Your task to perform on an android device: Open eBay Image 0: 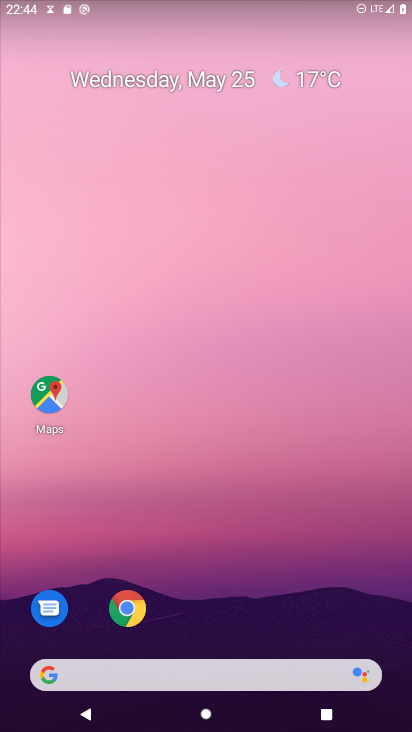
Step 0: click (128, 607)
Your task to perform on an android device: Open eBay Image 1: 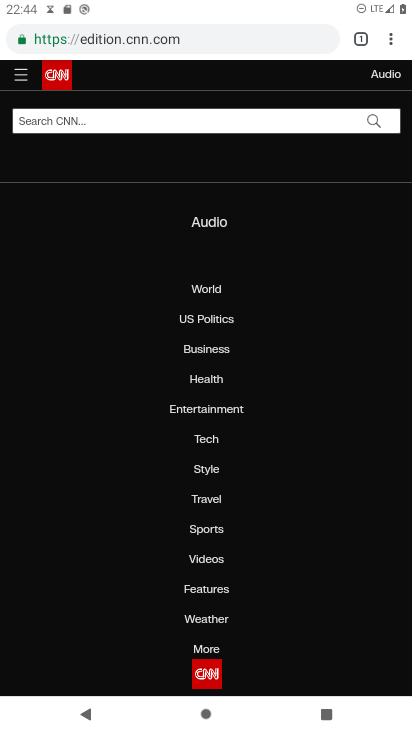
Step 1: click (390, 40)
Your task to perform on an android device: Open eBay Image 2: 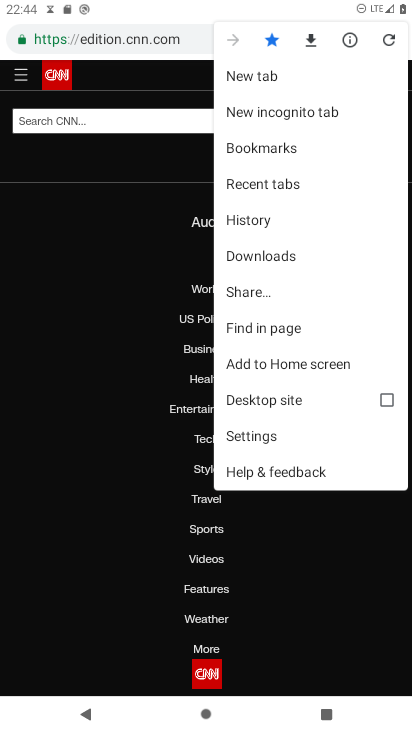
Step 2: click (273, 81)
Your task to perform on an android device: Open eBay Image 3: 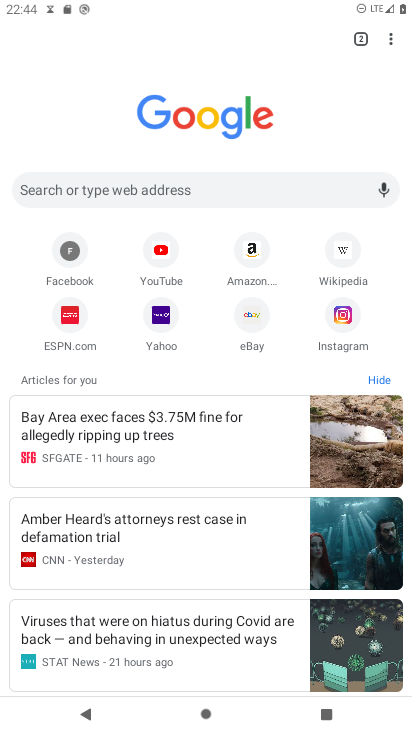
Step 3: click (245, 317)
Your task to perform on an android device: Open eBay Image 4: 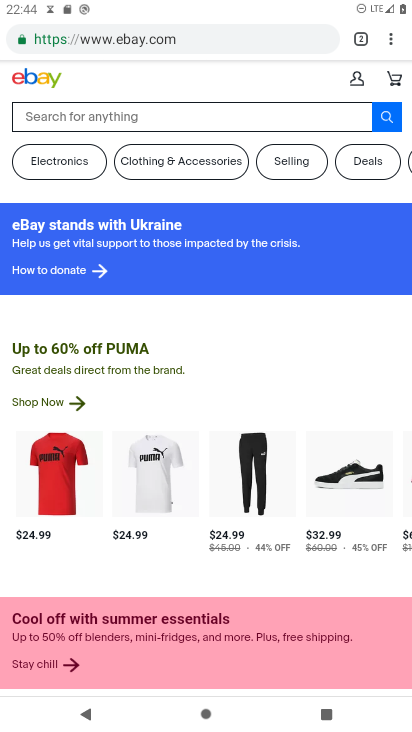
Step 4: task complete